Your task to perform on an android device: turn off picture-in-picture Image 0: 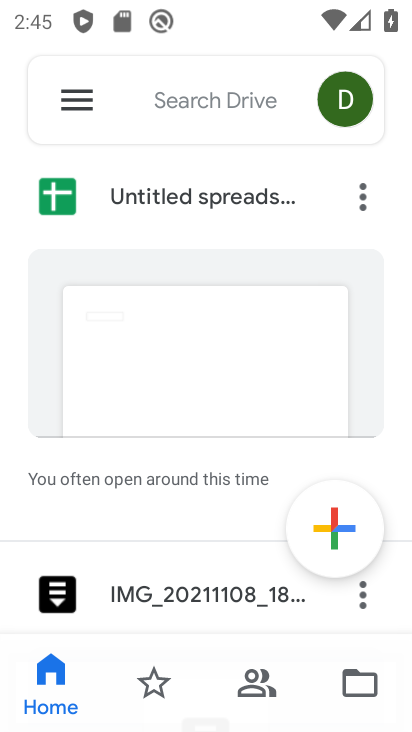
Step 0: press home button
Your task to perform on an android device: turn off picture-in-picture Image 1: 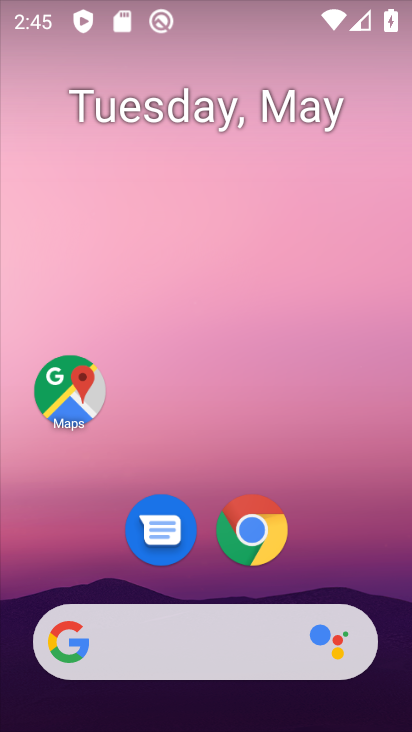
Step 1: task complete